Your task to perform on an android device: move an email to a new category in the gmail app Image 0: 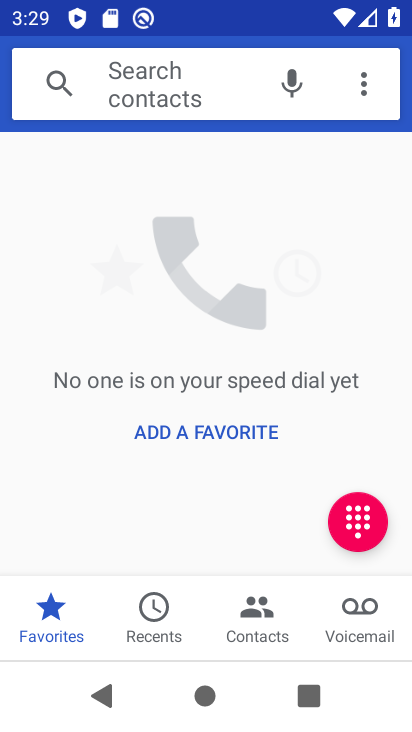
Step 0: press home button
Your task to perform on an android device: move an email to a new category in the gmail app Image 1: 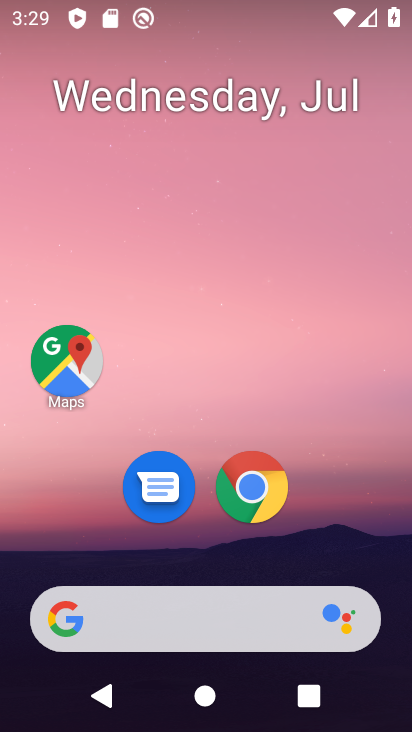
Step 1: drag from (226, 605) to (255, 286)
Your task to perform on an android device: move an email to a new category in the gmail app Image 2: 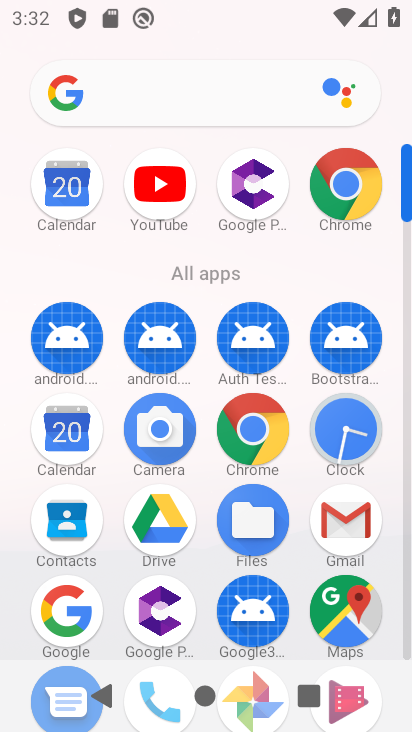
Step 2: click (357, 519)
Your task to perform on an android device: move an email to a new category in the gmail app Image 3: 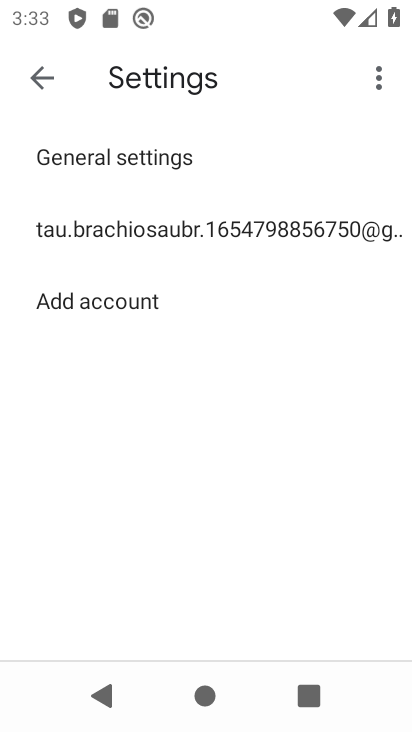
Step 3: click (37, 75)
Your task to perform on an android device: move an email to a new category in the gmail app Image 4: 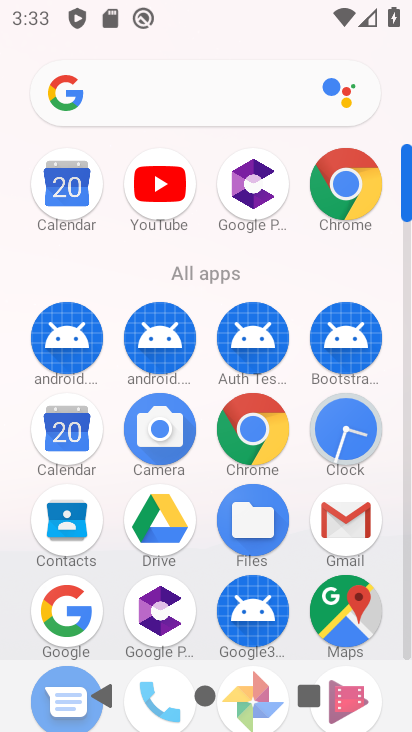
Step 4: click (349, 538)
Your task to perform on an android device: move an email to a new category in the gmail app Image 5: 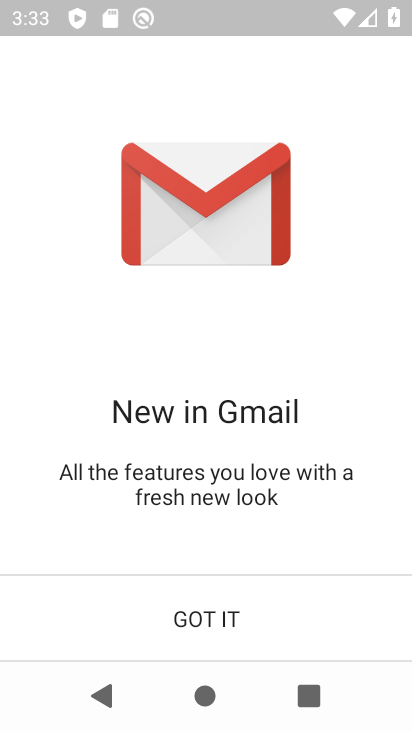
Step 5: click (310, 621)
Your task to perform on an android device: move an email to a new category in the gmail app Image 6: 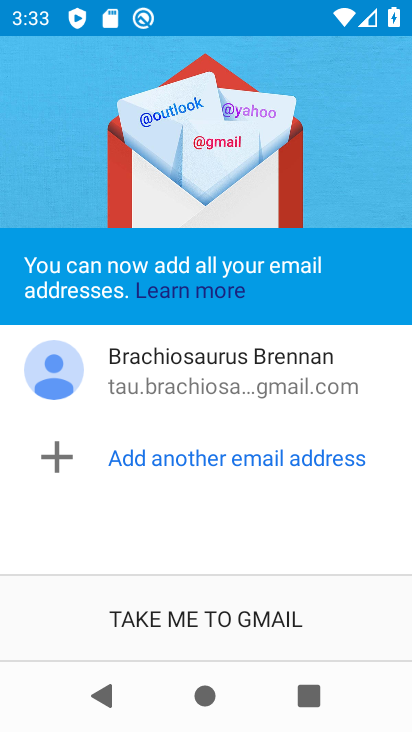
Step 6: click (271, 611)
Your task to perform on an android device: move an email to a new category in the gmail app Image 7: 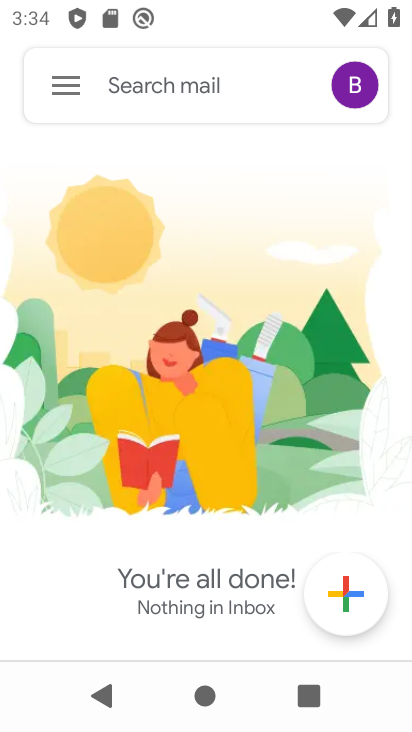
Step 7: click (71, 96)
Your task to perform on an android device: move an email to a new category in the gmail app Image 8: 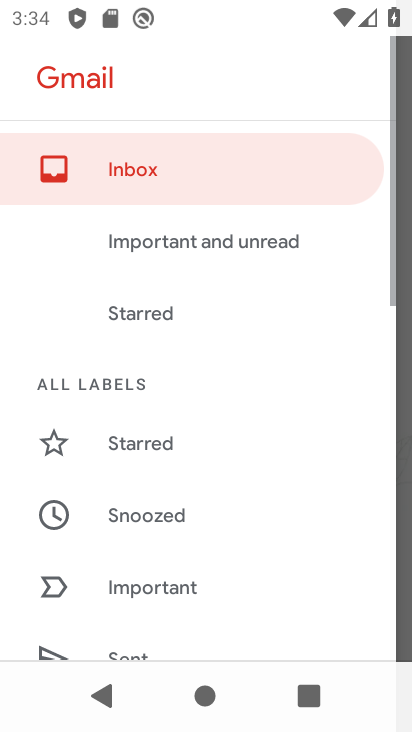
Step 8: drag from (145, 550) to (191, 198)
Your task to perform on an android device: move an email to a new category in the gmail app Image 9: 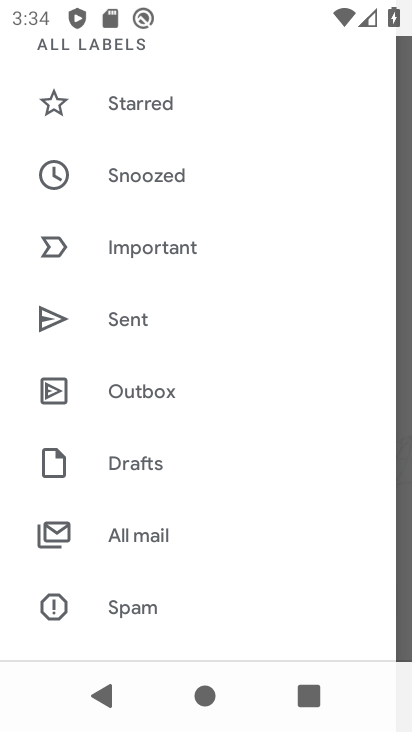
Step 9: click (164, 535)
Your task to perform on an android device: move an email to a new category in the gmail app Image 10: 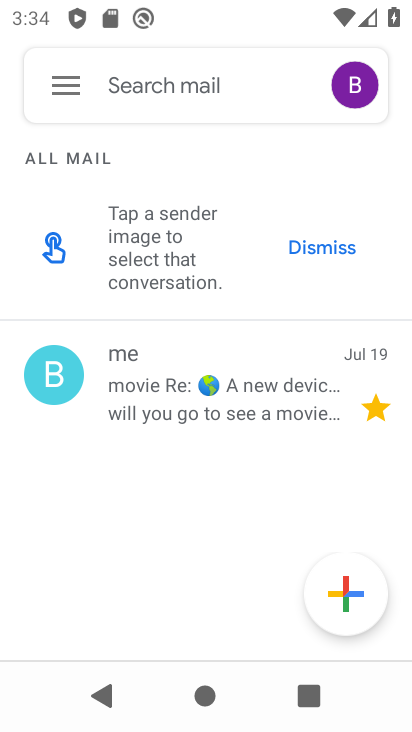
Step 10: click (233, 414)
Your task to perform on an android device: move an email to a new category in the gmail app Image 11: 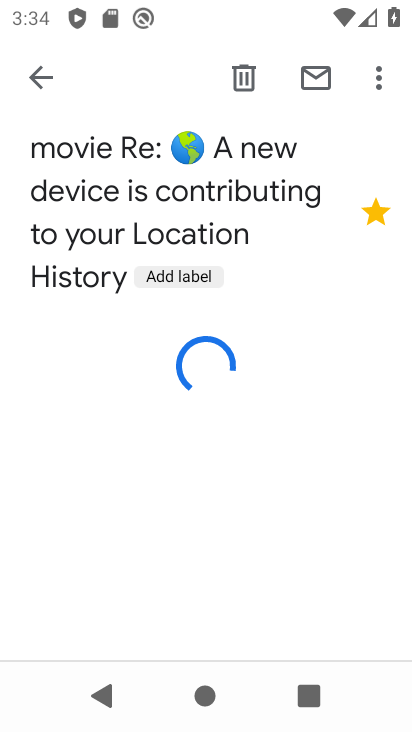
Step 11: click (379, 86)
Your task to perform on an android device: move an email to a new category in the gmail app Image 12: 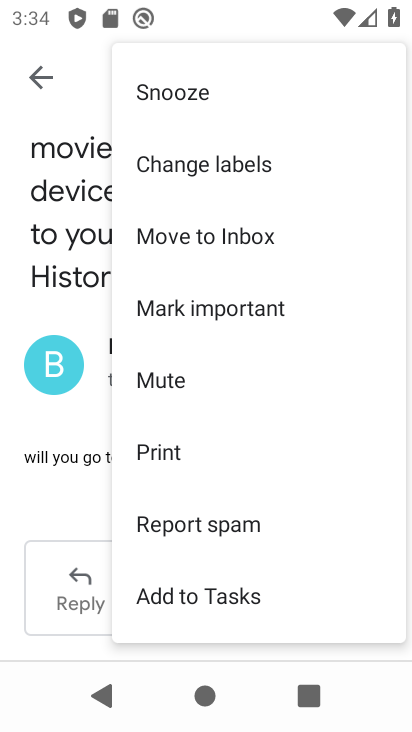
Step 12: click (221, 170)
Your task to perform on an android device: move an email to a new category in the gmail app Image 13: 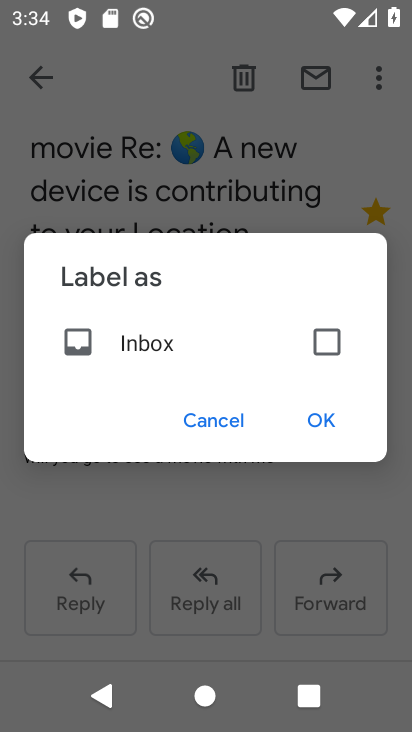
Step 13: click (326, 346)
Your task to perform on an android device: move an email to a new category in the gmail app Image 14: 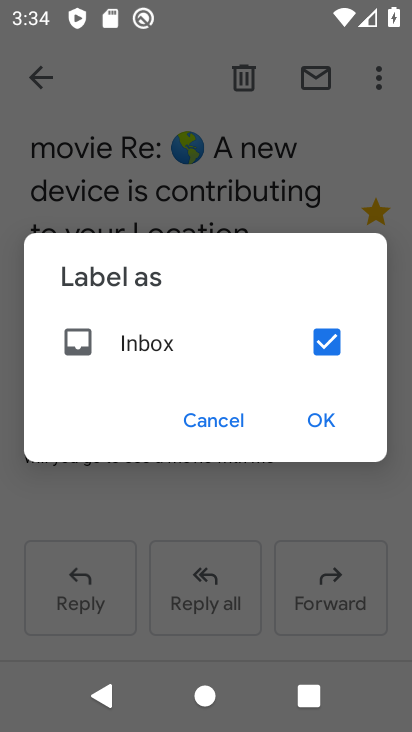
Step 14: click (320, 422)
Your task to perform on an android device: move an email to a new category in the gmail app Image 15: 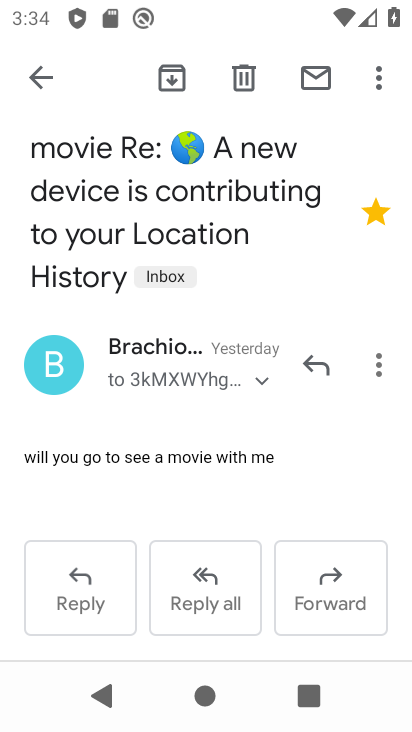
Step 15: task complete